Your task to perform on an android device: open app "Google Sheets" (install if not already installed) Image 0: 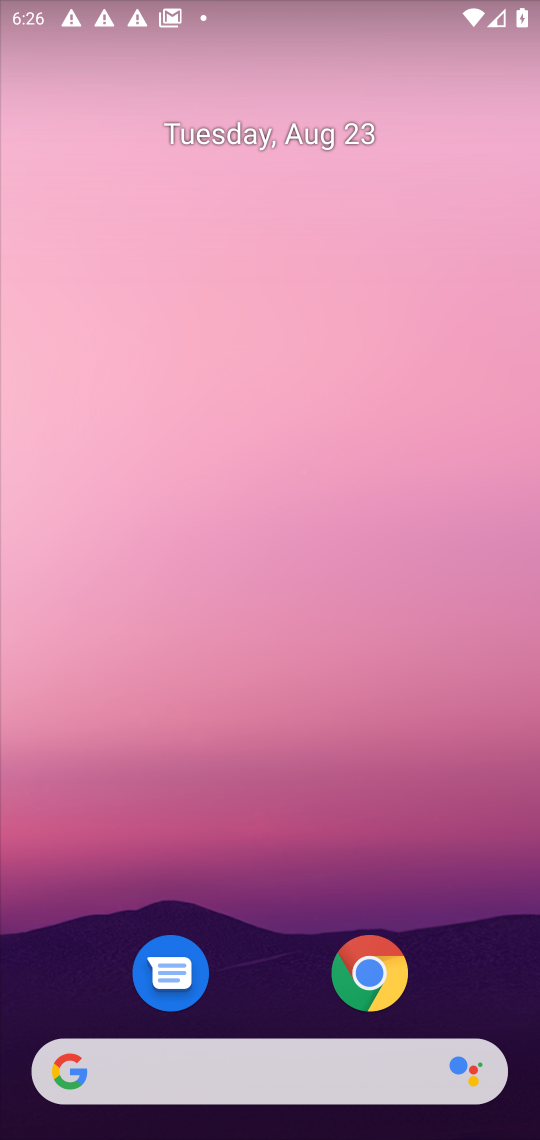
Step 0: drag from (393, 249) to (425, 59)
Your task to perform on an android device: open app "Google Sheets" (install if not already installed) Image 1: 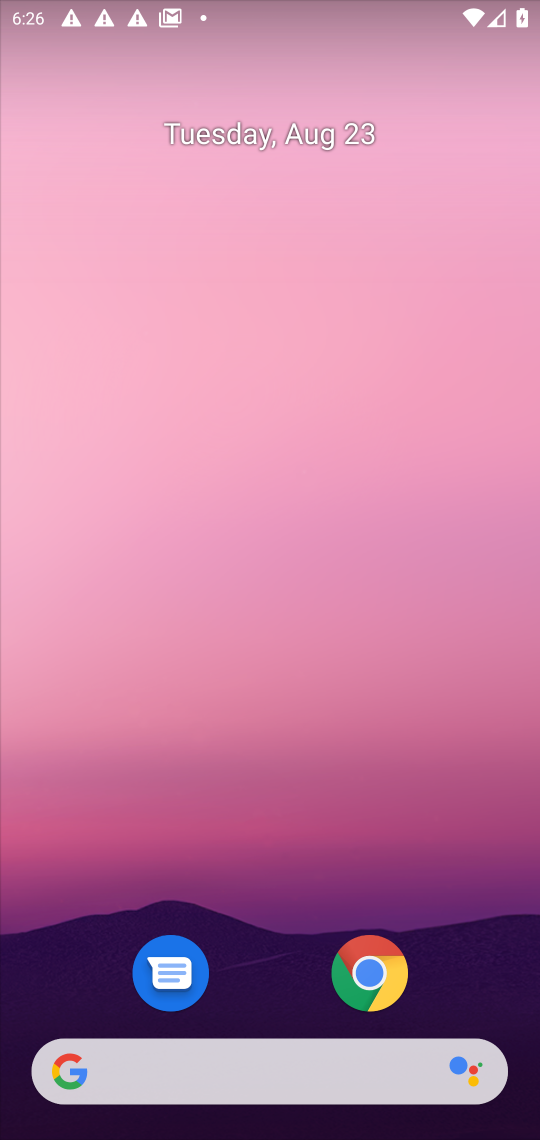
Step 1: drag from (235, 871) to (354, 21)
Your task to perform on an android device: open app "Google Sheets" (install if not already installed) Image 2: 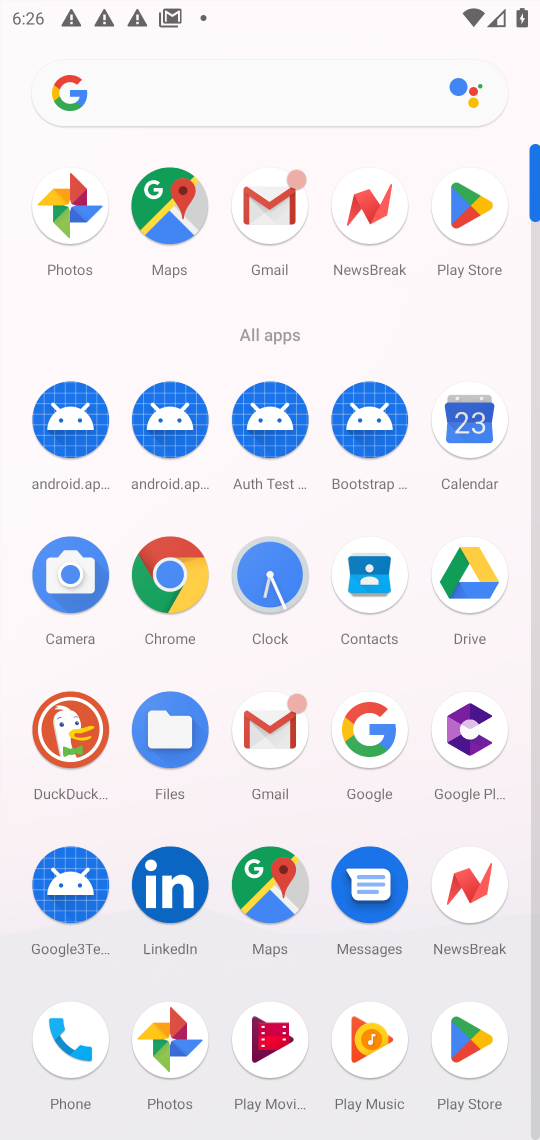
Step 2: click (461, 212)
Your task to perform on an android device: open app "Google Sheets" (install if not already installed) Image 3: 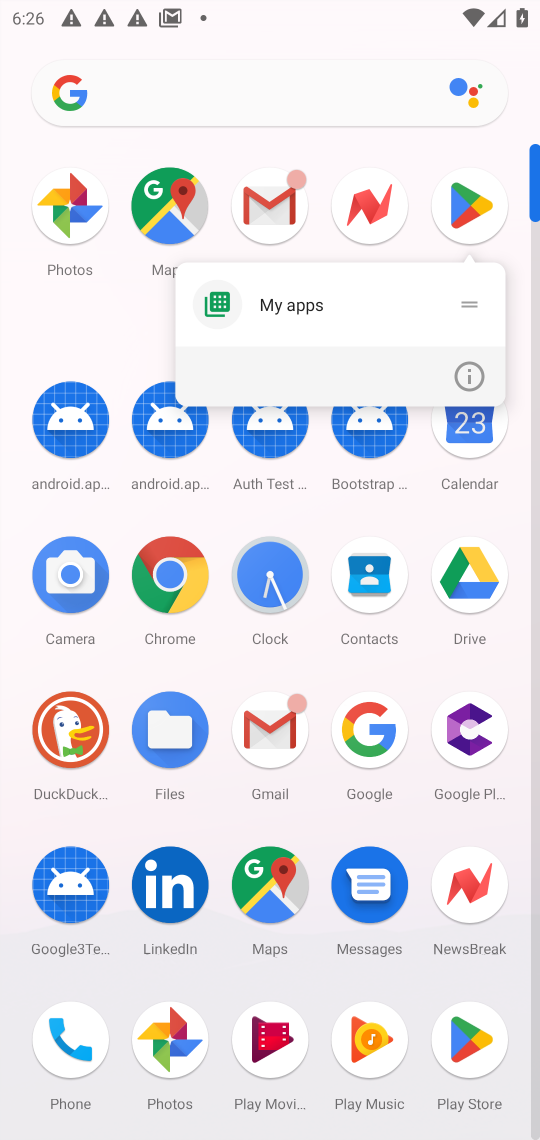
Step 3: click (485, 195)
Your task to perform on an android device: open app "Google Sheets" (install if not already installed) Image 4: 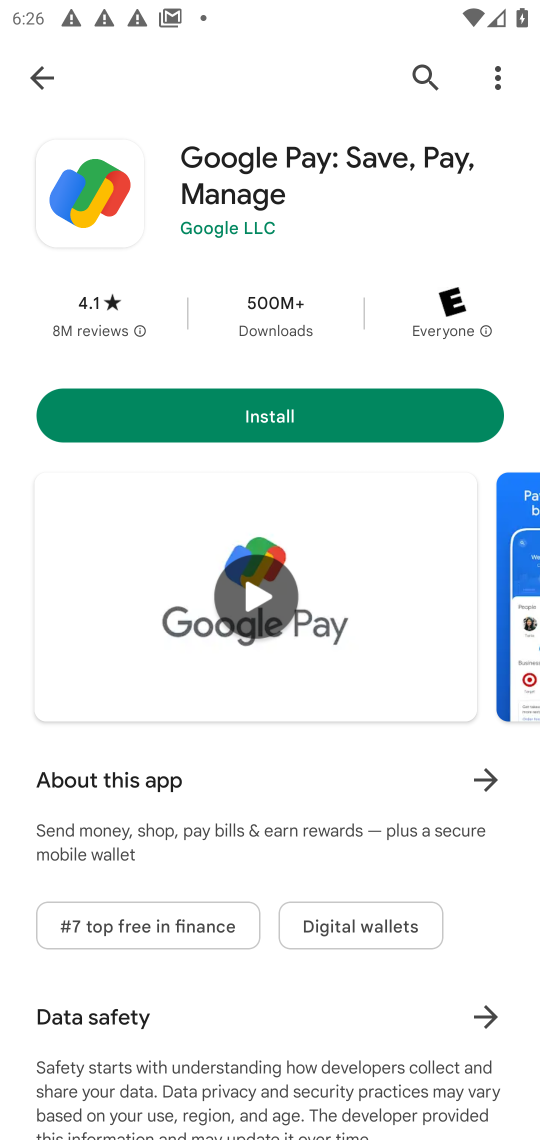
Step 4: click (421, 80)
Your task to perform on an android device: open app "Google Sheets" (install if not already installed) Image 5: 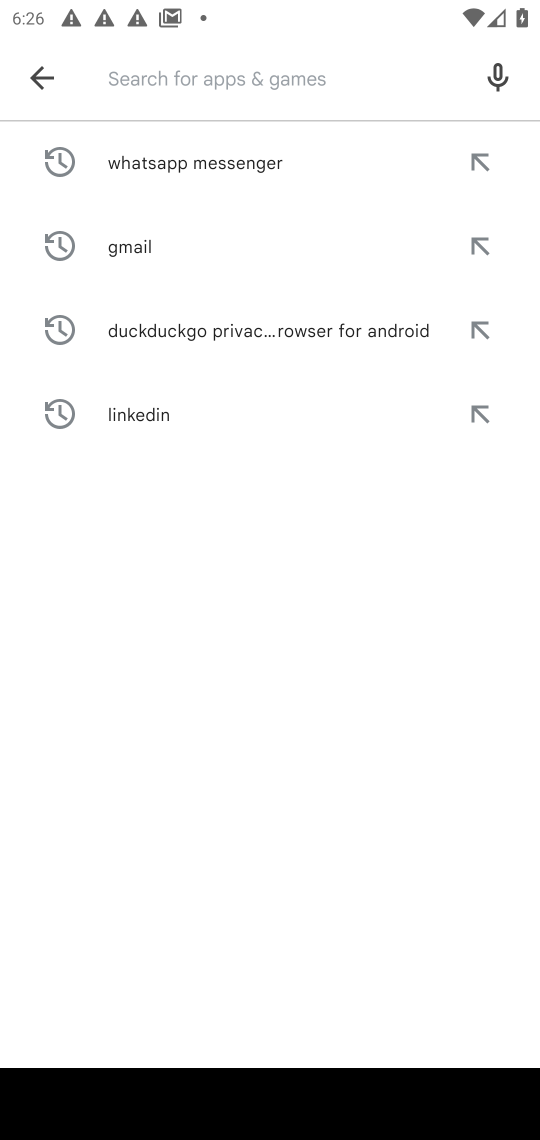
Step 5: click (253, 91)
Your task to perform on an android device: open app "Google Sheets" (install if not already installed) Image 6: 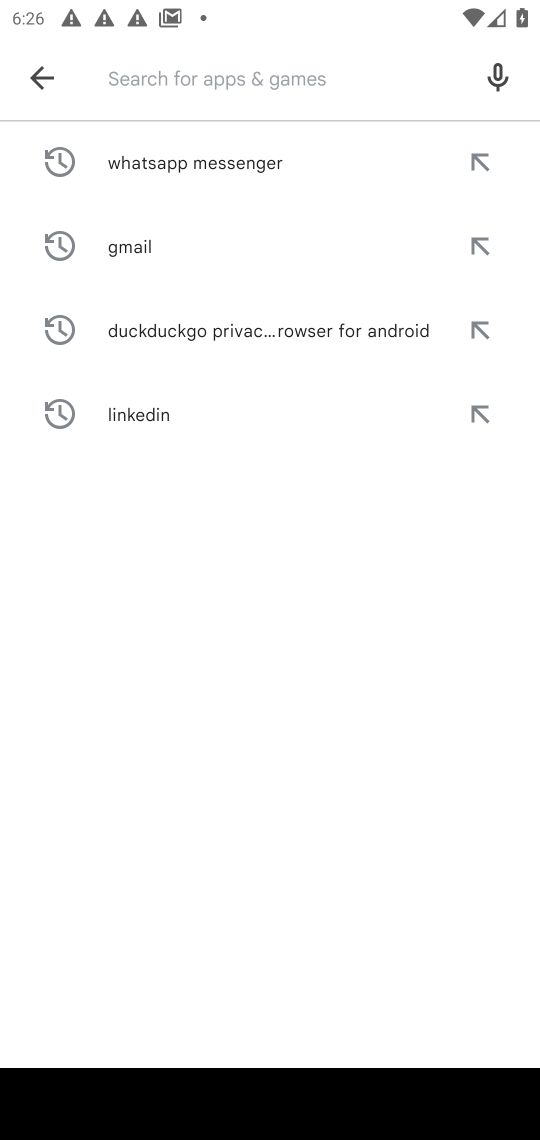
Step 6: type "Google Sheets"
Your task to perform on an android device: open app "Google Sheets" (install if not already installed) Image 7: 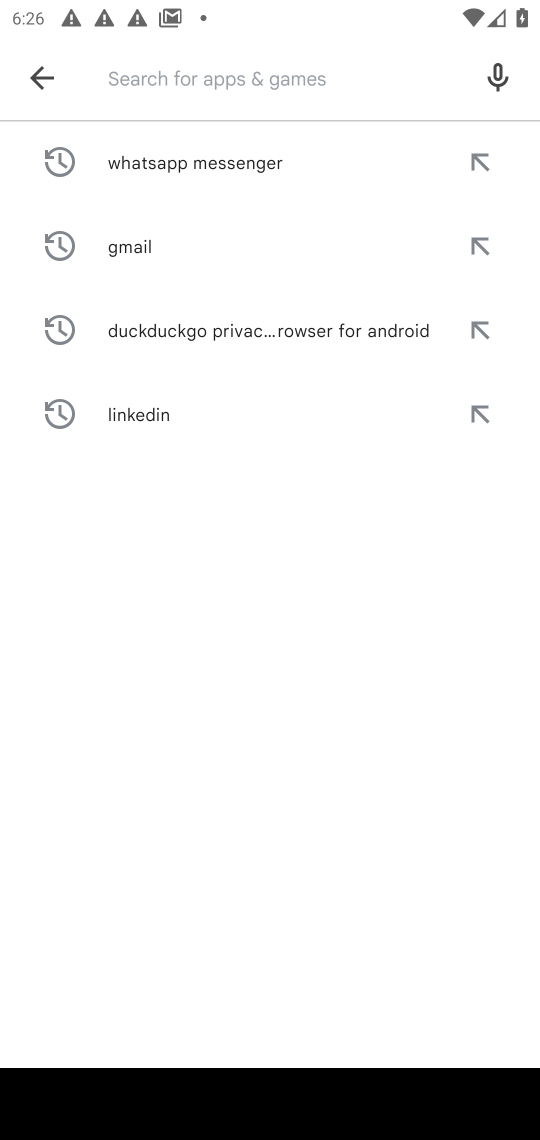
Step 7: click (196, 761)
Your task to perform on an android device: open app "Google Sheets" (install if not already installed) Image 8: 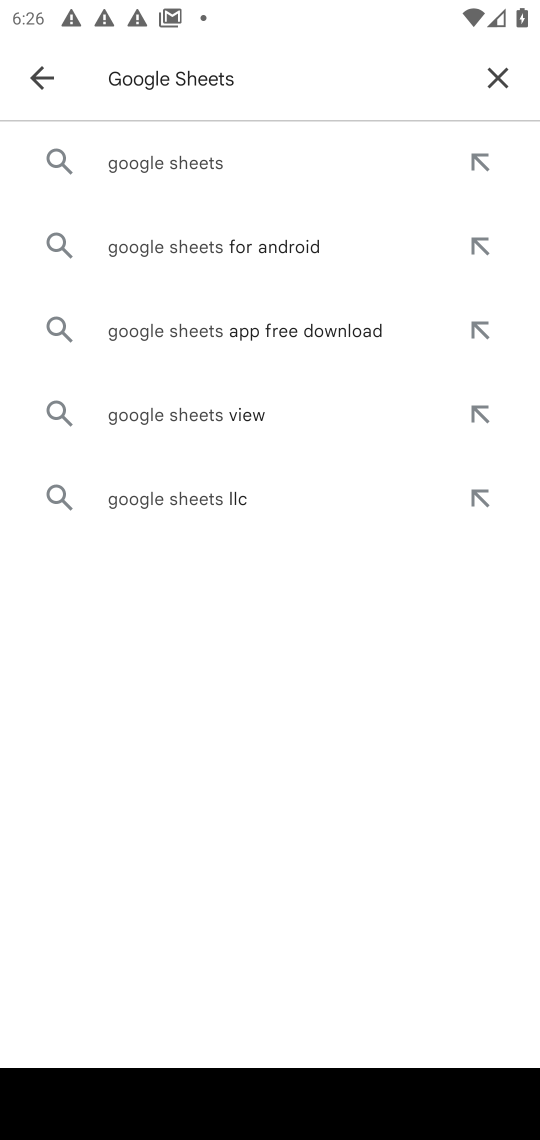
Step 8: click (181, 173)
Your task to perform on an android device: open app "Google Sheets" (install if not already installed) Image 9: 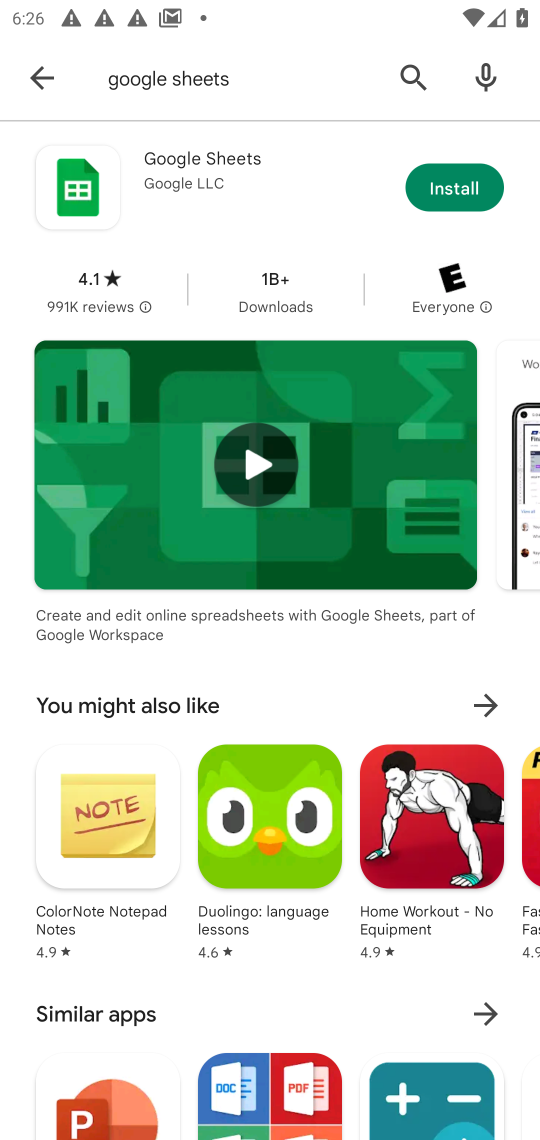
Step 9: click (439, 196)
Your task to perform on an android device: open app "Google Sheets" (install if not already installed) Image 10: 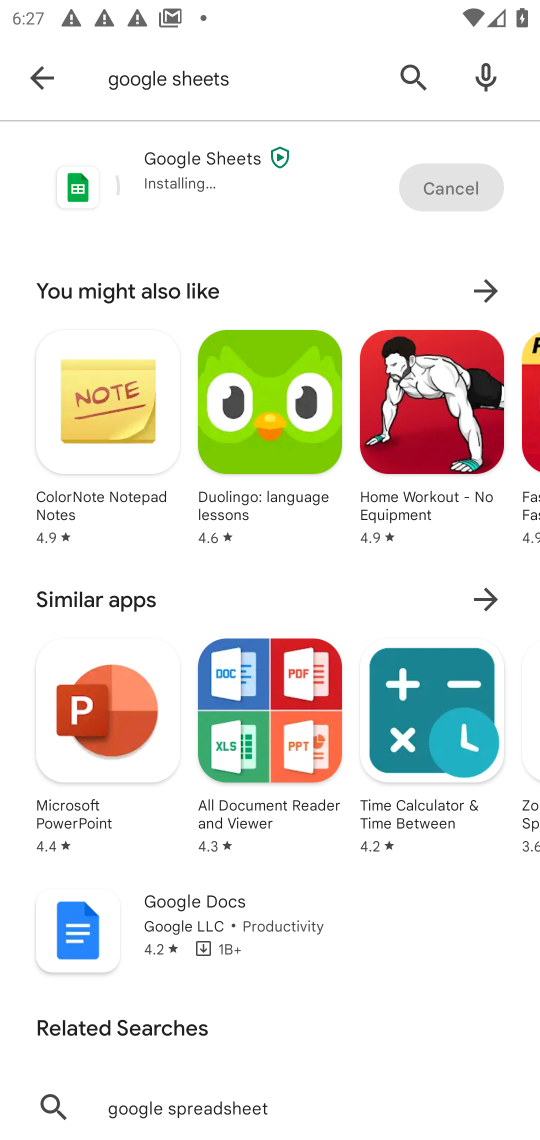
Step 10: press back button
Your task to perform on an android device: open app "Google Sheets" (install if not already installed) Image 11: 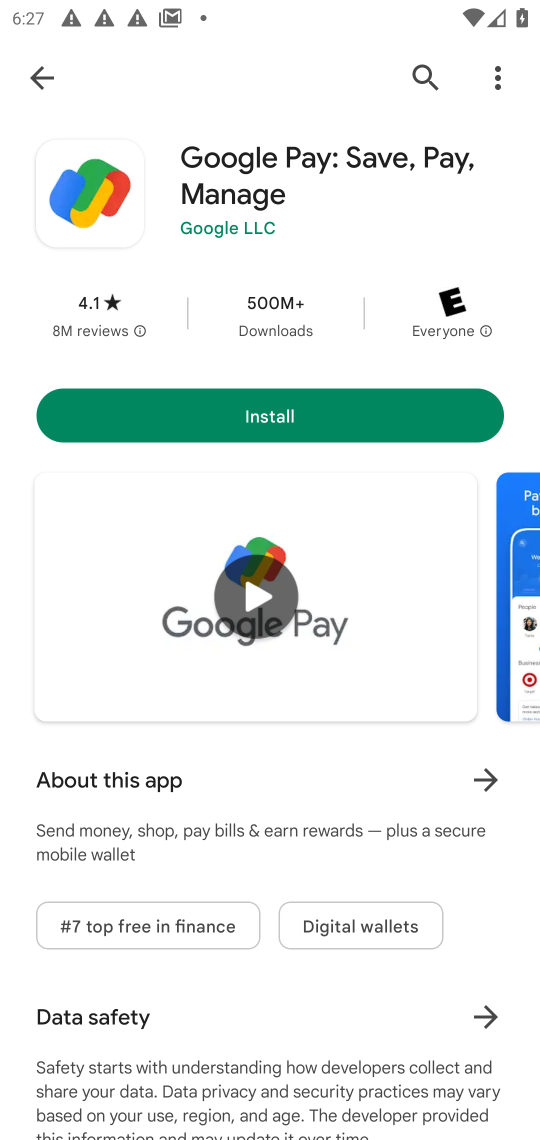
Step 11: click (406, 71)
Your task to perform on an android device: open app "Google Sheets" (install if not already installed) Image 12: 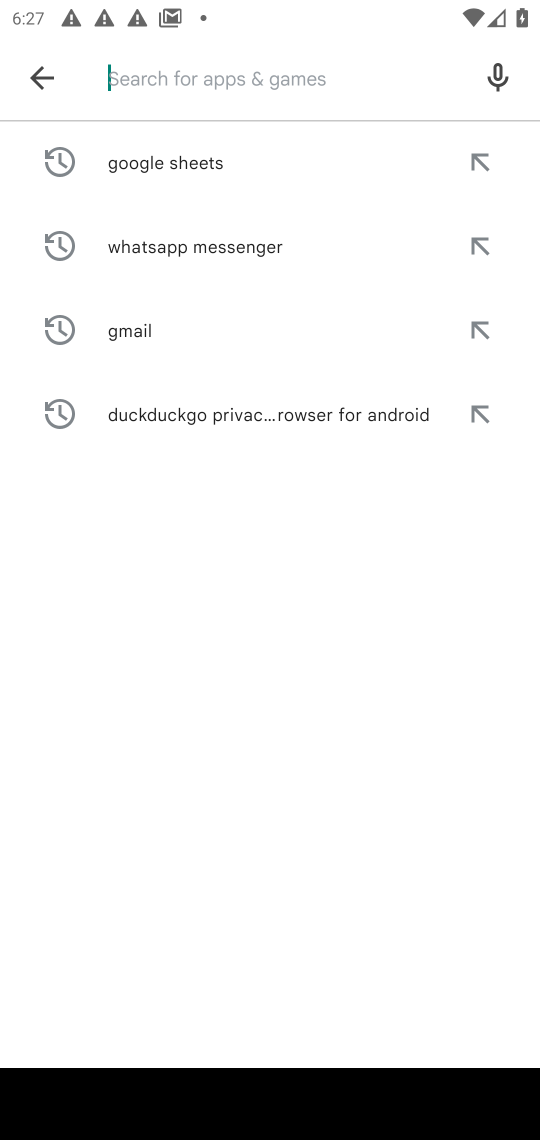
Step 12: click (232, 169)
Your task to perform on an android device: open app "Google Sheets" (install if not already installed) Image 13: 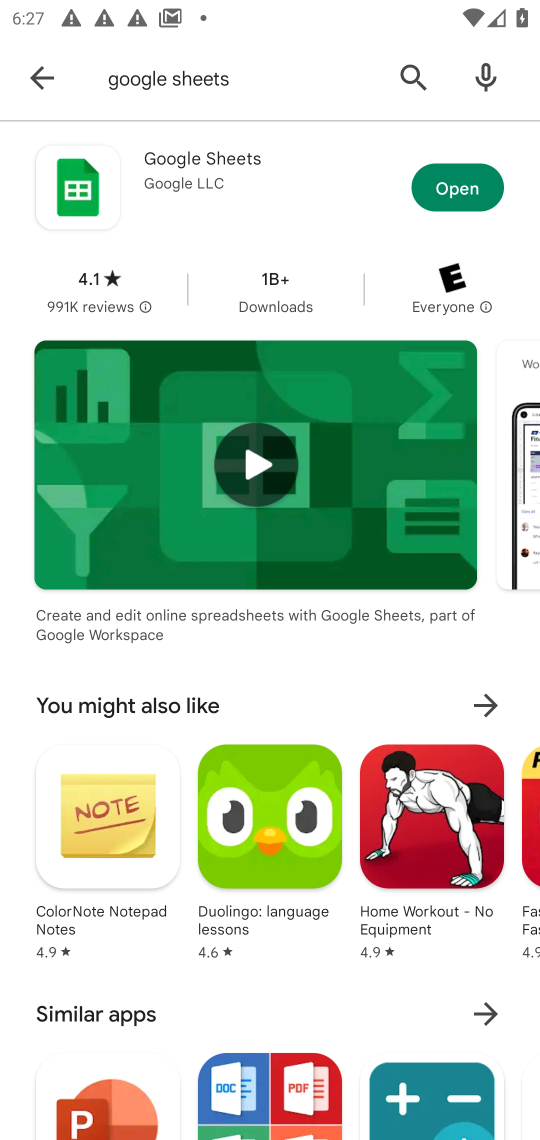
Step 13: click (442, 196)
Your task to perform on an android device: open app "Google Sheets" (install if not already installed) Image 14: 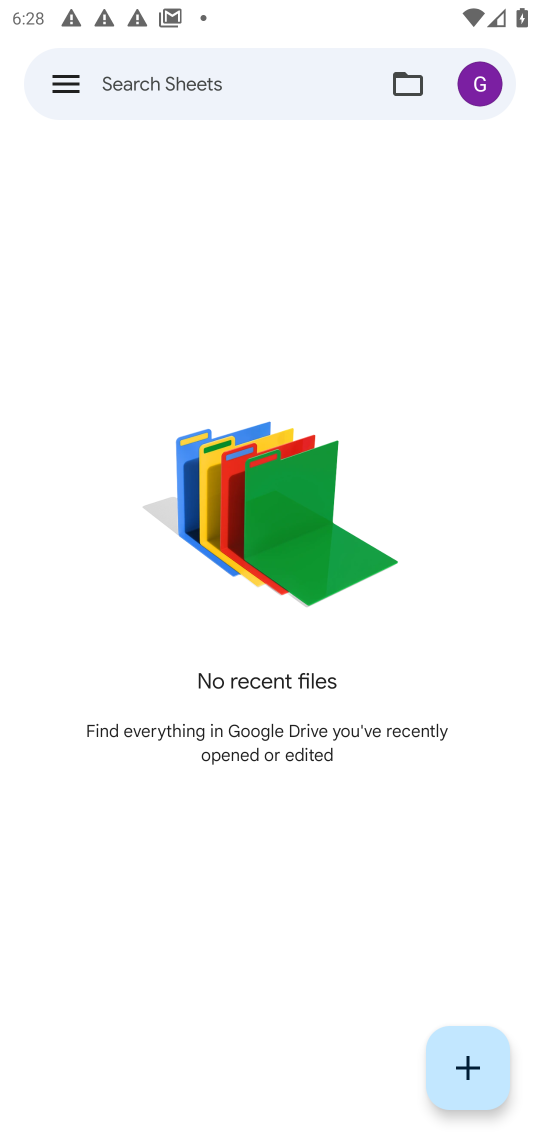
Step 14: task complete